Your task to perform on an android device: change keyboard looks Image 0: 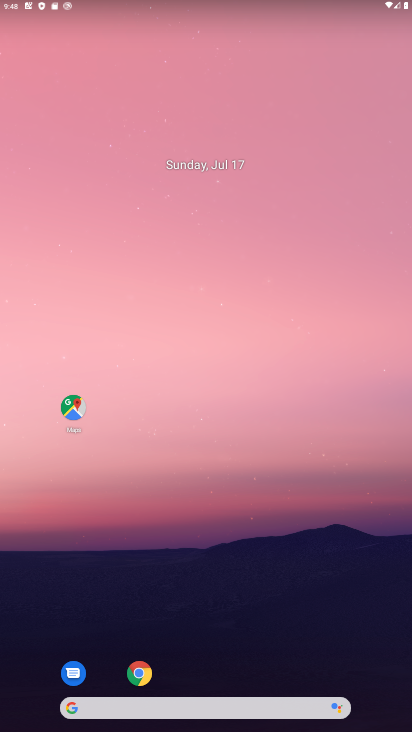
Step 0: drag from (216, 665) to (206, 87)
Your task to perform on an android device: change keyboard looks Image 1: 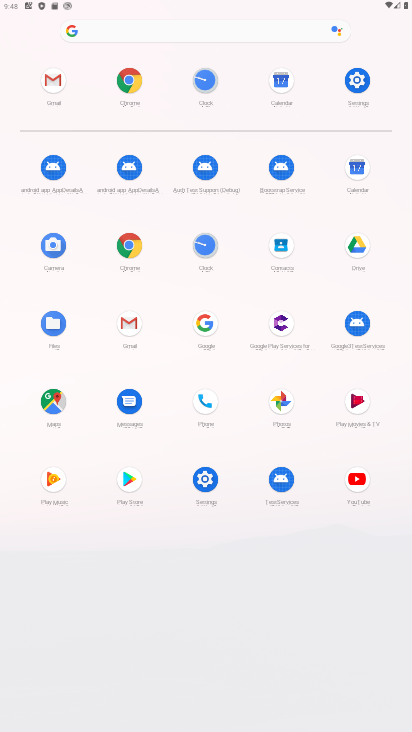
Step 1: click (202, 478)
Your task to perform on an android device: change keyboard looks Image 2: 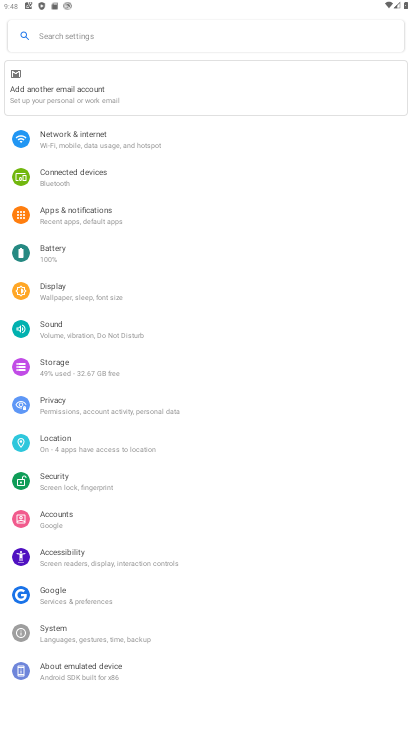
Step 2: drag from (211, 578) to (222, 196)
Your task to perform on an android device: change keyboard looks Image 3: 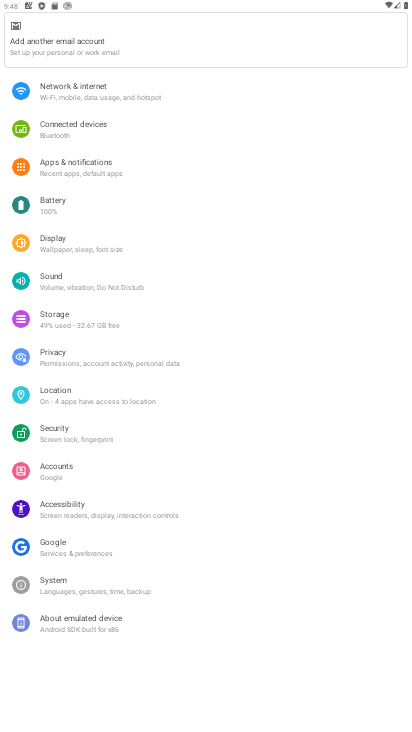
Step 3: click (65, 591)
Your task to perform on an android device: change keyboard looks Image 4: 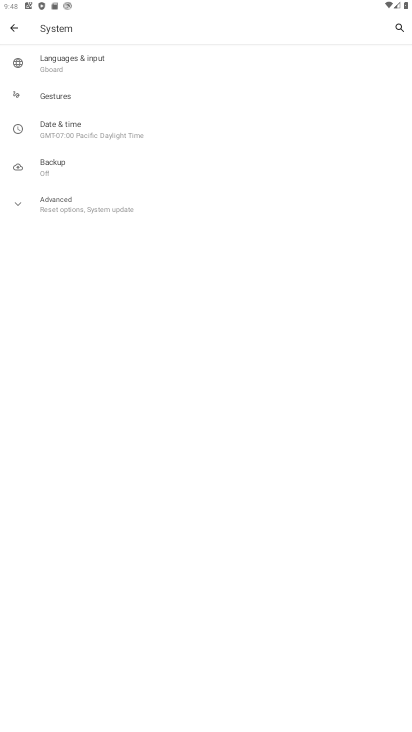
Step 4: click (93, 62)
Your task to perform on an android device: change keyboard looks Image 5: 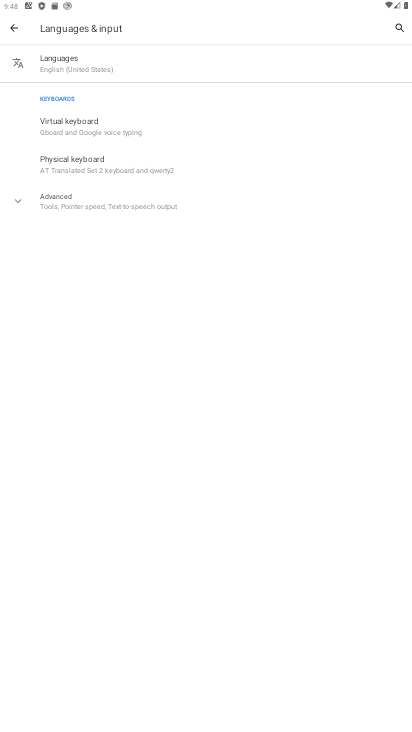
Step 5: click (95, 120)
Your task to perform on an android device: change keyboard looks Image 6: 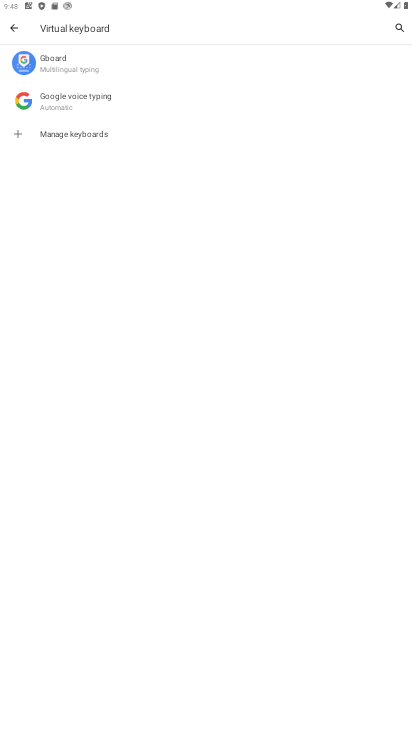
Step 6: click (85, 67)
Your task to perform on an android device: change keyboard looks Image 7: 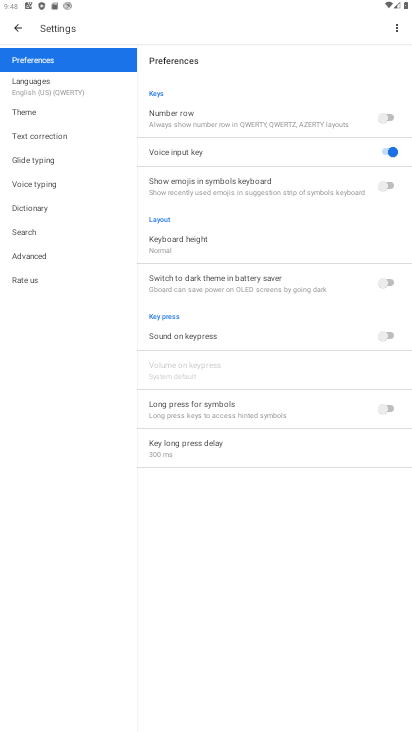
Step 7: click (23, 109)
Your task to perform on an android device: change keyboard looks Image 8: 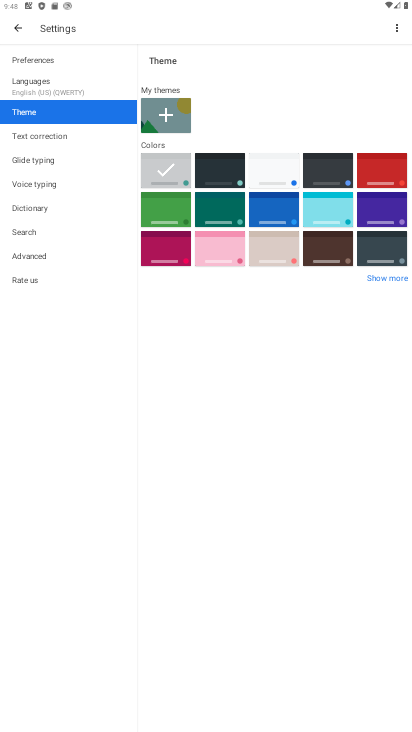
Step 8: click (222, 165)
Your task to perform on an android device: change keyboard looks Image 9: 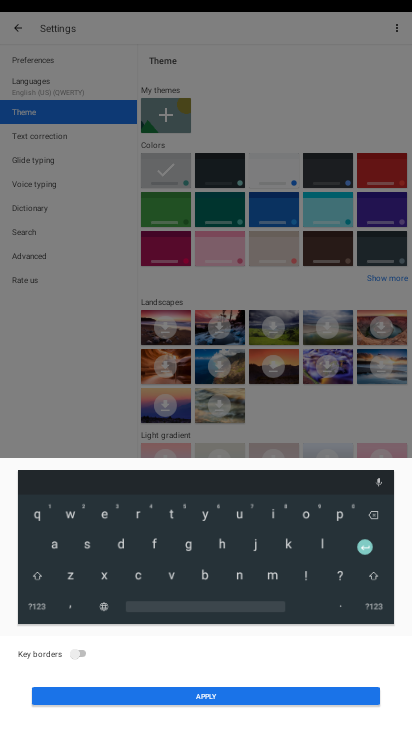
Step 9: click (157, 698)
Your task to perform on an android device: change keyboard looks Image 10: 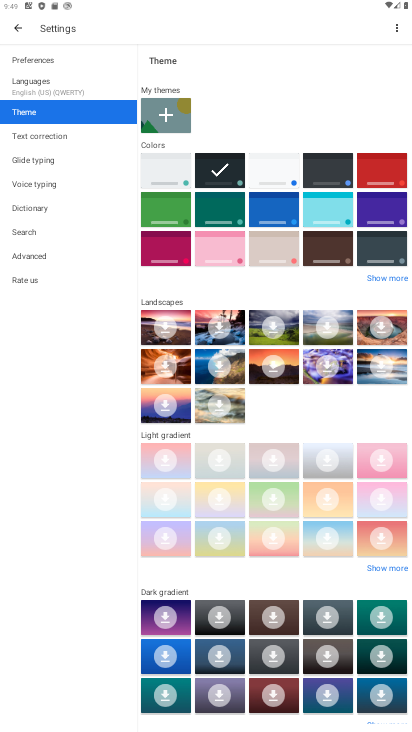
Step 10: task complete